Your task to perform on an android device: Open wifi settings Image 0: 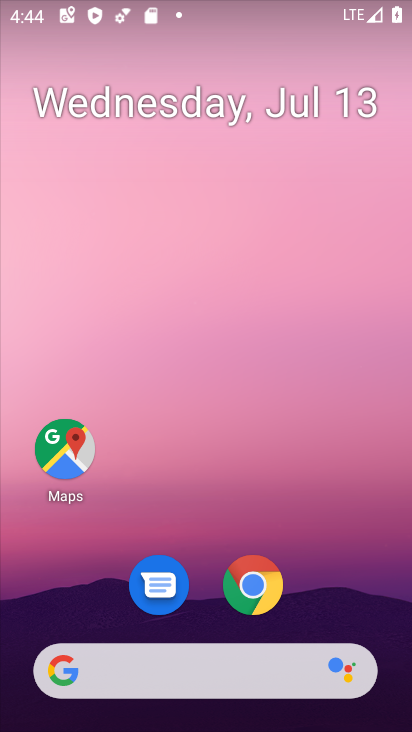
Step 0: drag from (323, 586) to (313, 101)
Your task to perform on an android device: Open wifi settings Image 1: 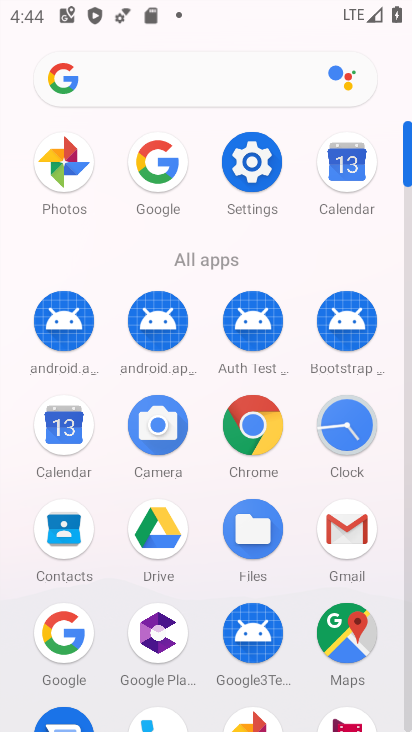
Step 1: click (264, 165)
Your task to perform on an android device: Open wifi settings Image 2: 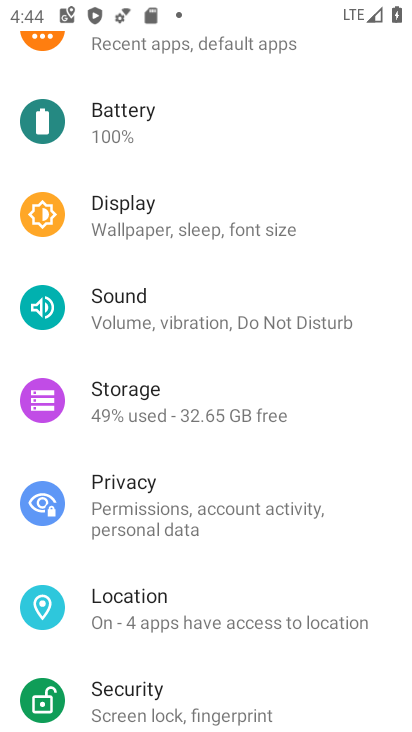
Step 2: drag from (268, 283) to (229, 706)
Your task to perform on an android device: Open wifi settings Image 3: 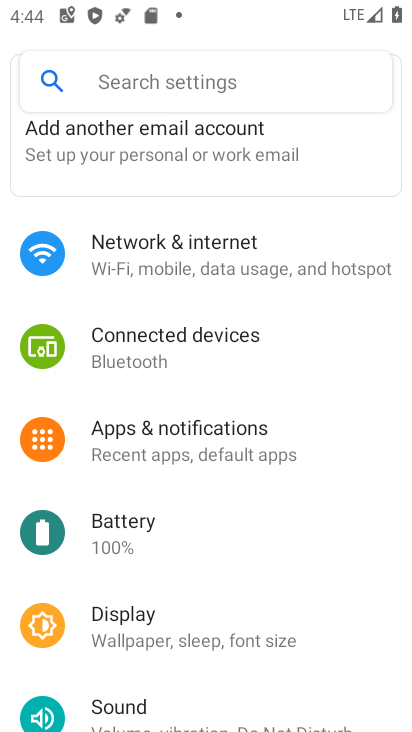
Step 3: click (249, 254)
Your task to perform on an android device: Open wifi settings Image 4: 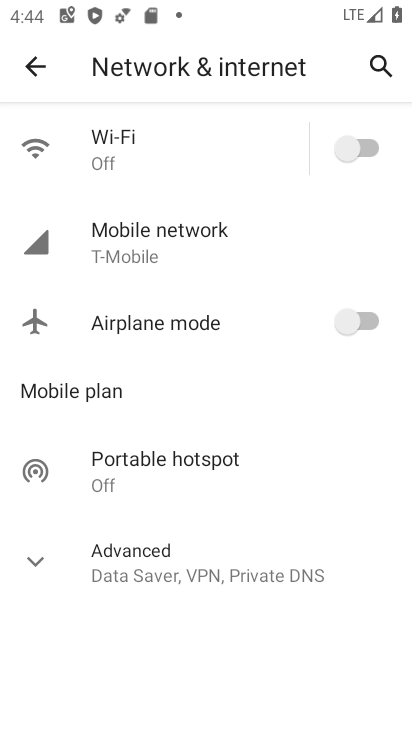
Step 4: click (116, 155)
Your task to perform on an android device: Open wifi settings Image 5: 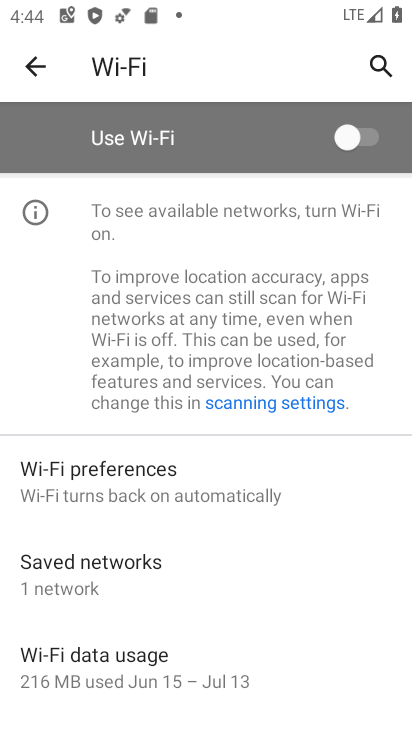
Step 5: task complete